Your task to perform on an android device: add a contact Image 0: 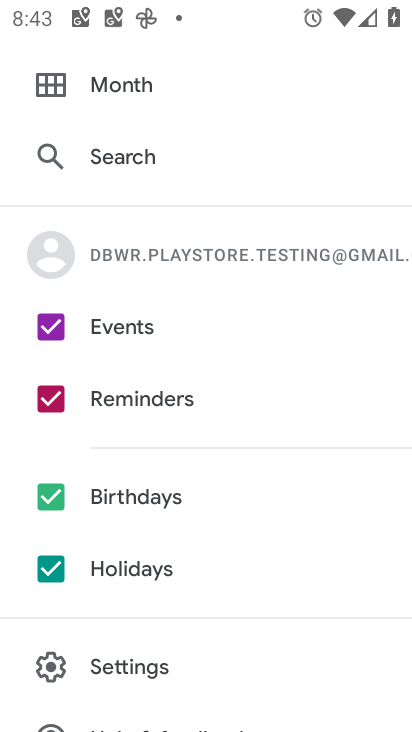
Step 0: press home button
Your task to perform on an android device: add a contact Image 1: 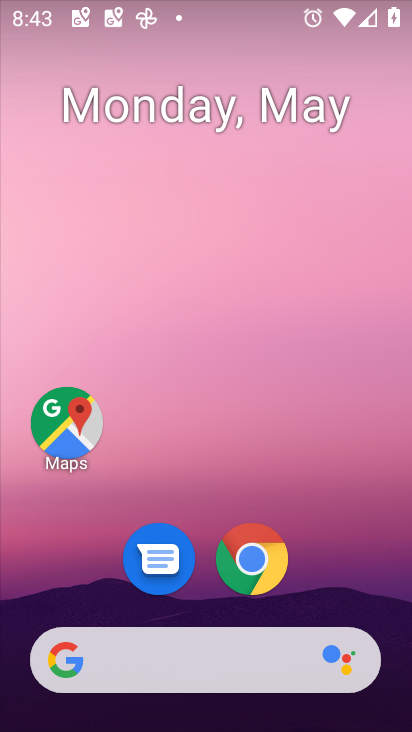
Step 1: drag from (391, 647) to (312, 30)
Your task to perform on an android device: add a contact Image 2: 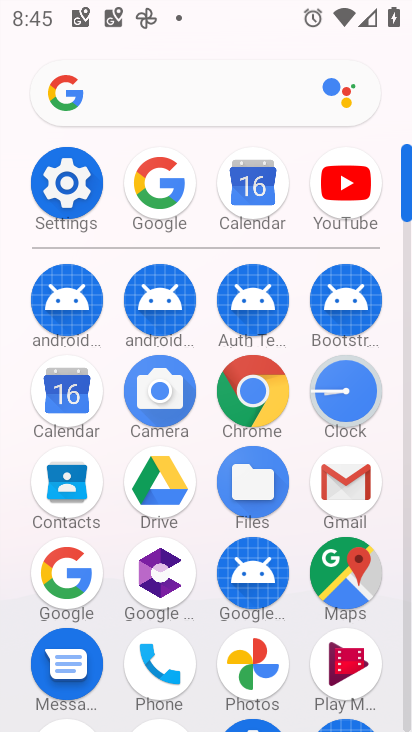
Step 2: click (70, 508)
Your task to perform on an android device: add a contact Image 3: 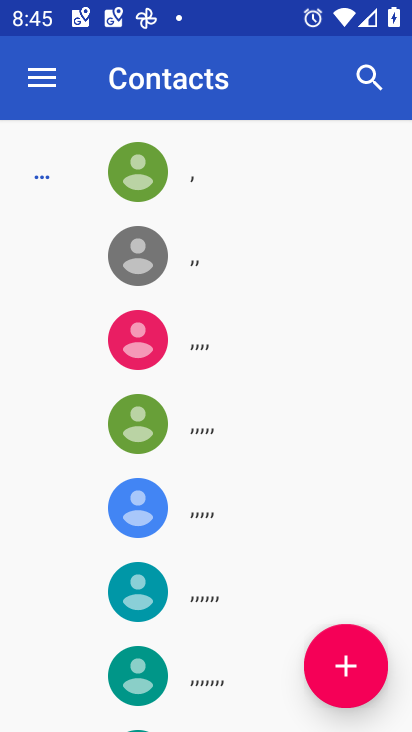
Step 3: click (354, 653)
Your task to perform on an android device: add a contact Image 4: 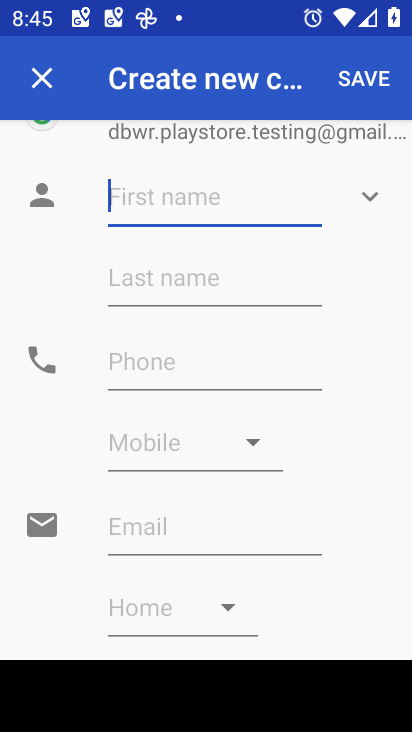
Step 4: type "komal"
Your task to perform on an android device: add a contact Image 5: 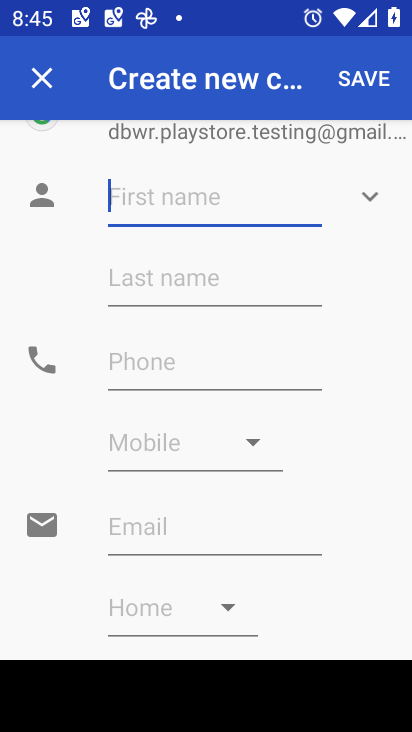
Step 5: click (362, 66)
Your task to perform on an android device: add a contact Image 6: 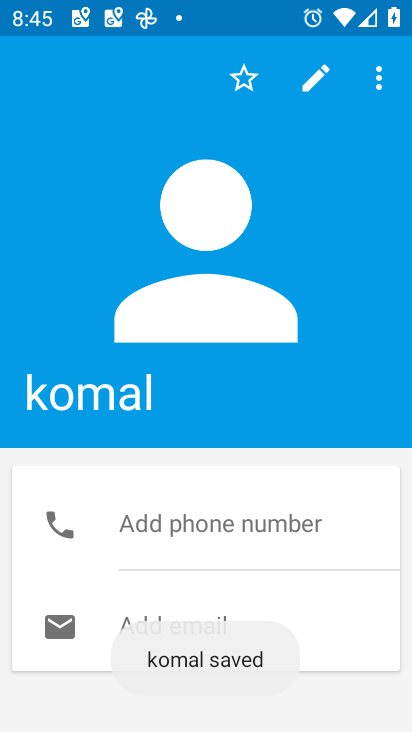
Step 6: task complete